Your task to perform on an android device: set an alarm Image 0: 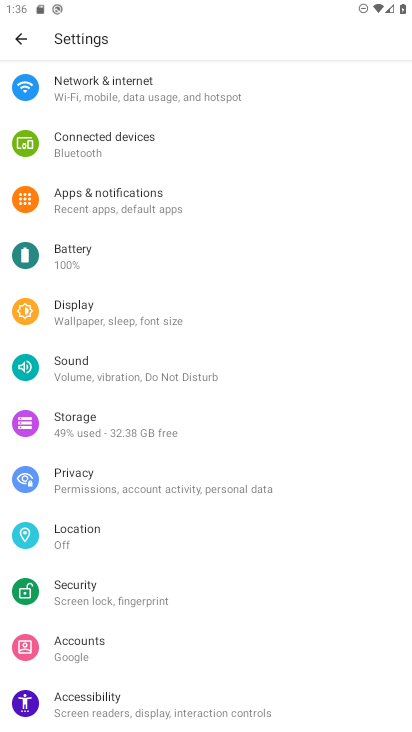
Step 0: press home button
Your task to perform on an android device: set an alarm Image 1: 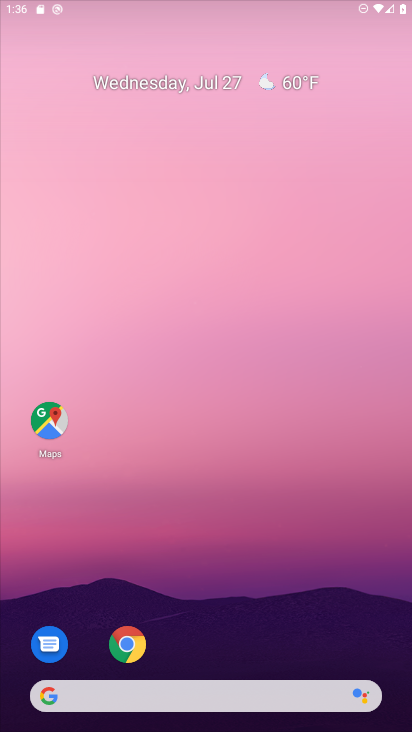
Step 1: drag from (228, 549) to (312, 222)
Your task to perform on an android device: set an alarm Image 2: 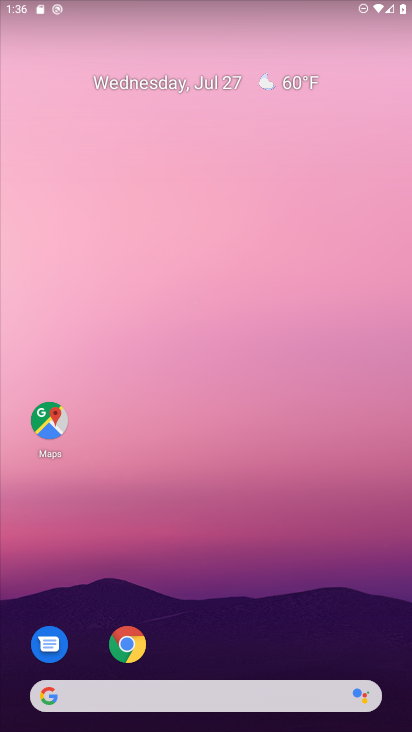
Step 2: drag from (201, 661) to (387, 67)
Your task to perform on an android device: set an alarm Image 3: 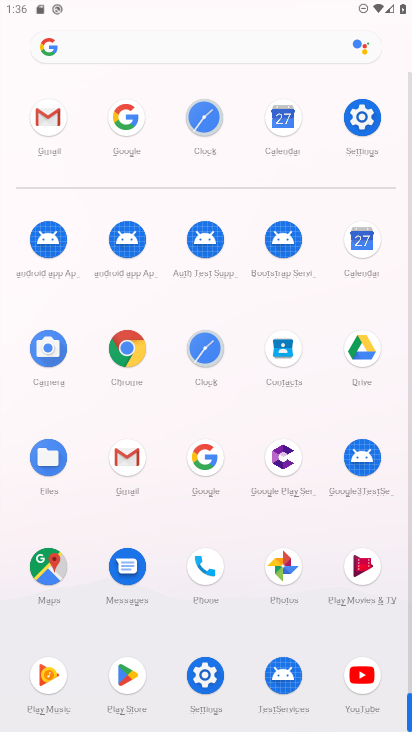
Step 3: click (215, 350)
Your task to perform on an android device: set an alarm Image 4: 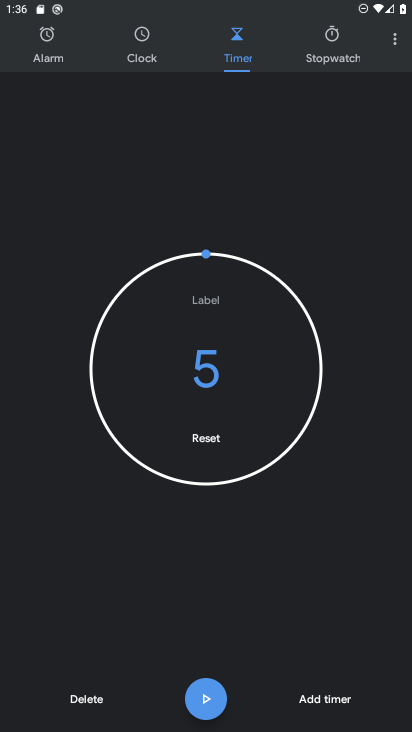
Step 4: click (55, 35)
Your task to perform on an android device: set an alarm Image 5: 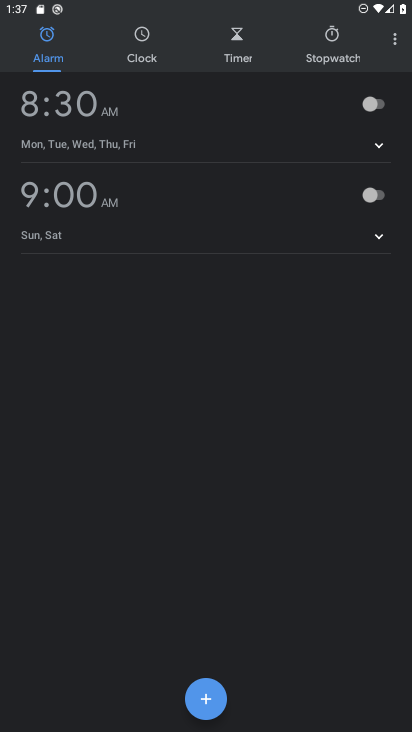
Step 5: click (377, 100)
Your task to perform on an android device: set an alarm Image 6: 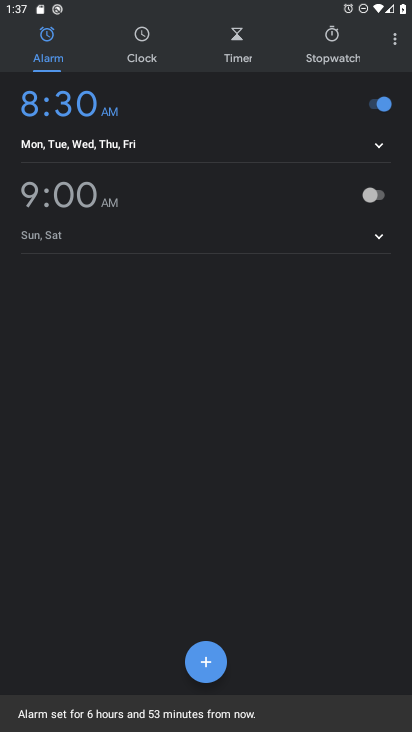
Step 6: task complete